Your task to perform on an android device: check out phone information Image 0: 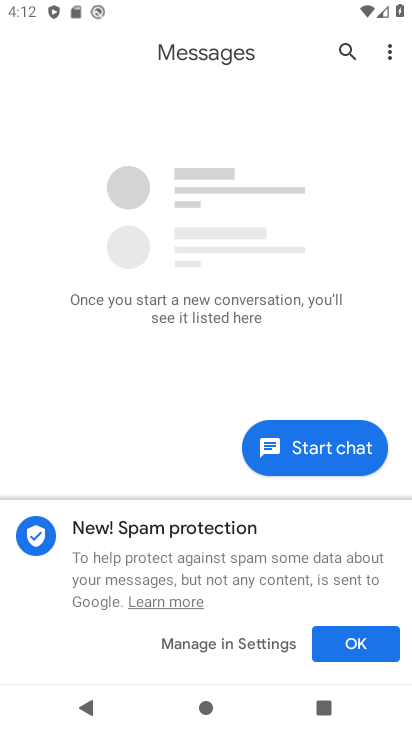
Step 0: press home button
Your task to perform on an android device: check out phone information Image 1: 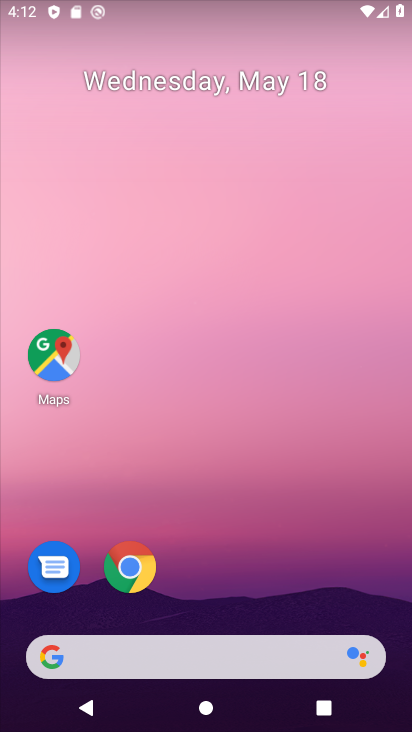
Step 1: drag from (157, 617) to (160, 297)
Your task to perform on an android device: check out phone information Image 2: 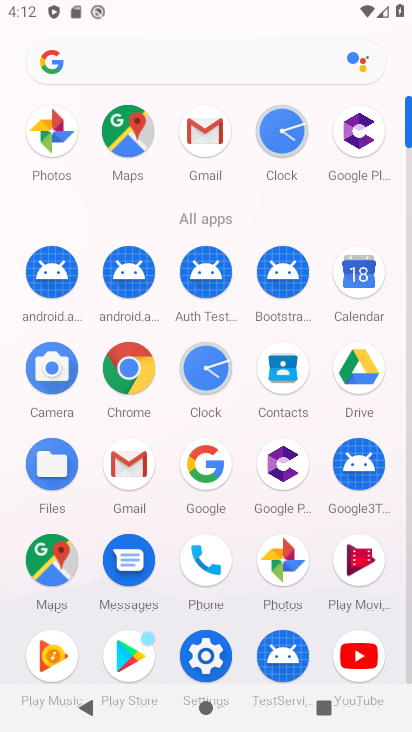
Step 2: click (203, 569)
Your task to perform on an android device: check out phone information Image 3: 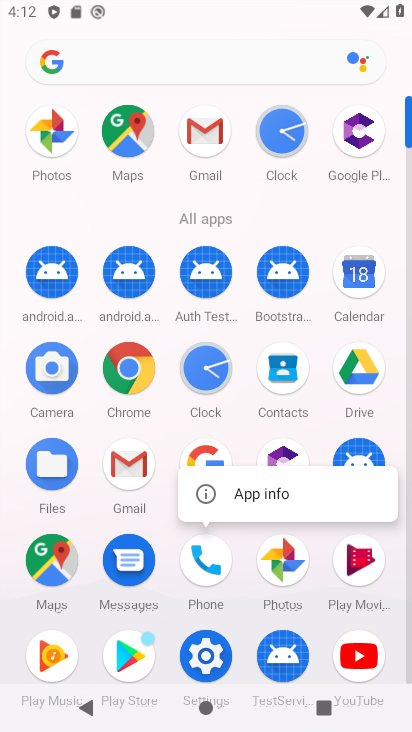
Step 3: click (212, 505)
Your task to perform on an android device: check out phone information Image 4: 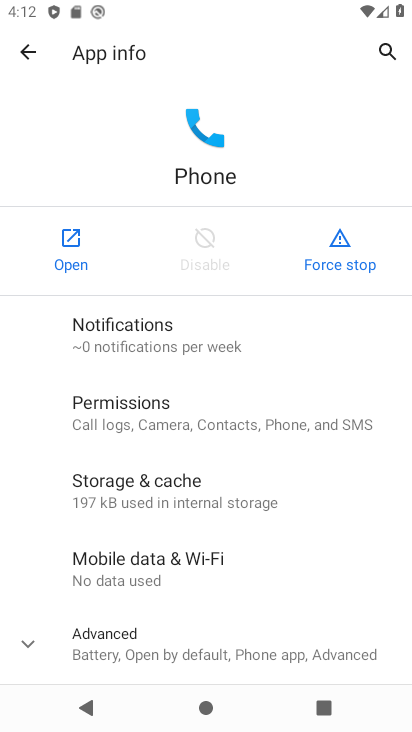
Step 4: click (175, 644)
Your task to perform on an android device: check out phone information Image 5: 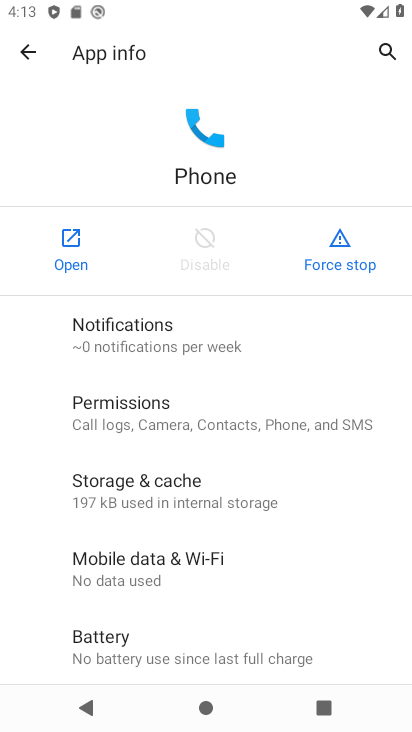
Step 5: task complete